Your task to perform on an android device: Add "logitech g502" to the cart on walmart.com, then select checkout. Image 0: 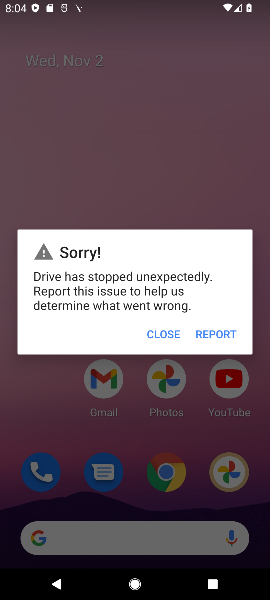
Step 0: task complete